Your task to perform on an android device: turn on airplane mode Image 0: 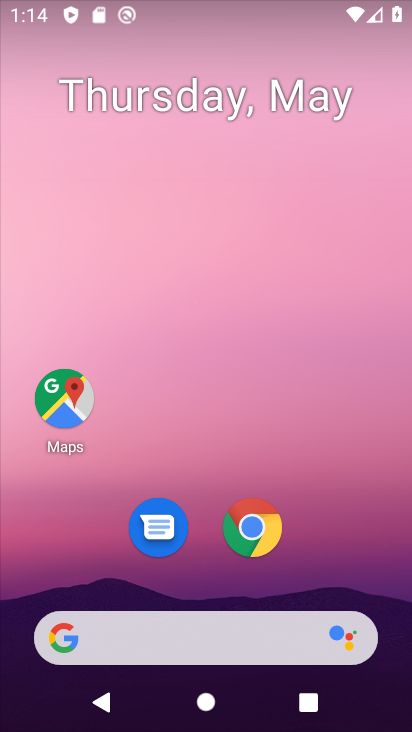
Step 0: click (224, 16)
Your task to perform on an android device: turn on airplane mode Image 1: 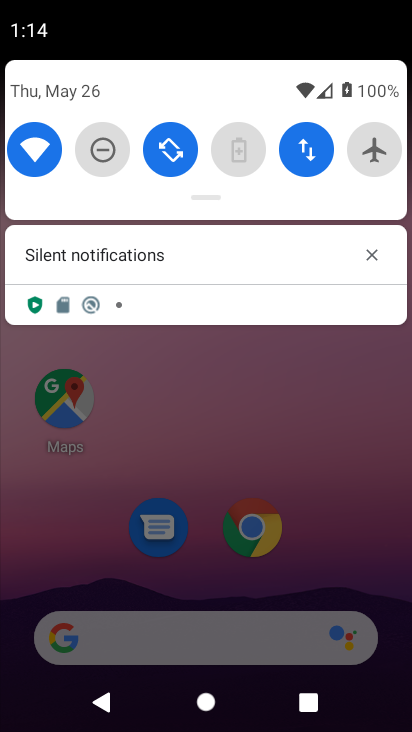
Step 1: drag from (203, 564) to (263, 98)
Your task to perform on an android device: turn on airplane mode Image 2: 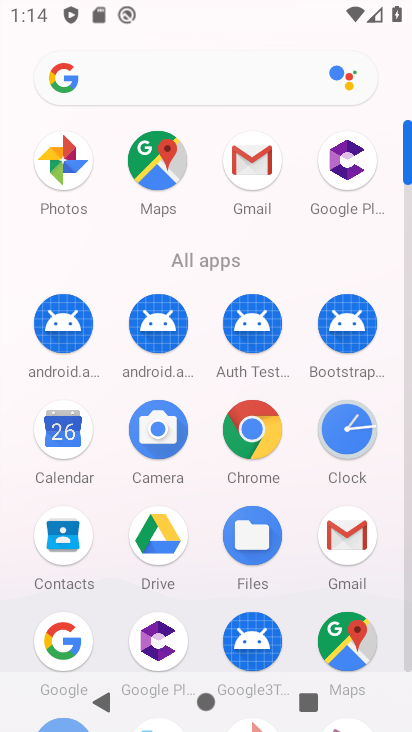
Step 2: drag from (204, 586) to (189, 190)
Your task to perform on an android device: turn on airplane mode Image 3: 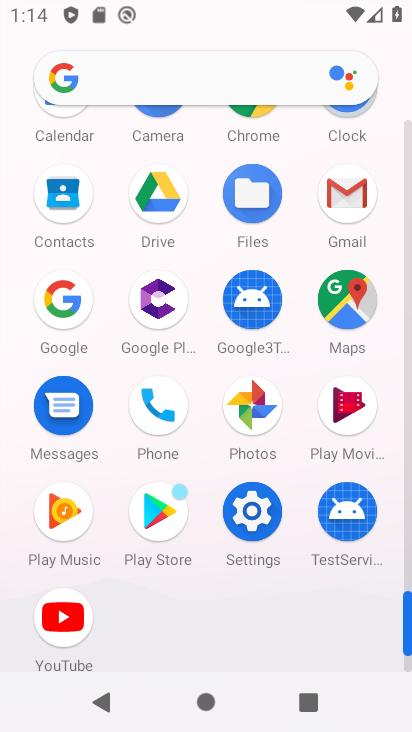
Step 3: click (254, 522)
Your task to perform on an android device: turn on airplane mode Image 4: 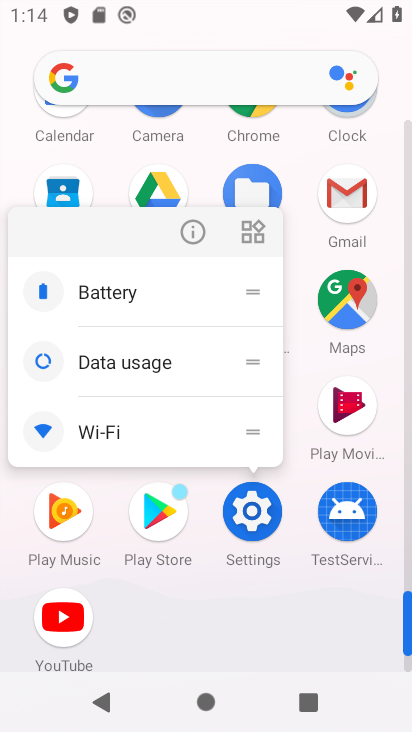
Step 4: click (192, 223)
Your task to perform on an android device: turn on airplane mode Image 5: 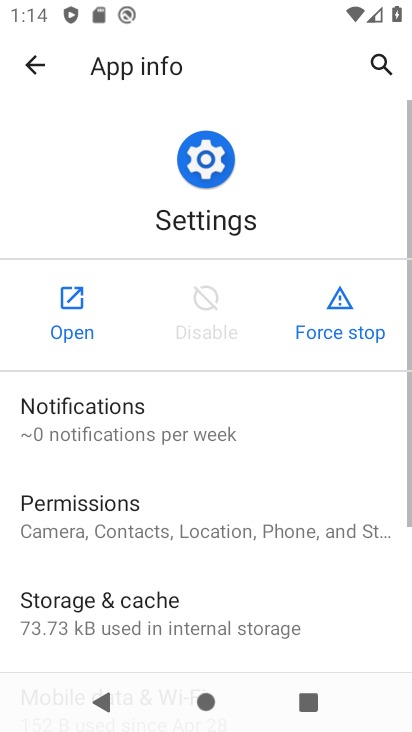
Step 5: click (79, 296)
Your task to perform on an android device: turn on airplane mode Image 6: 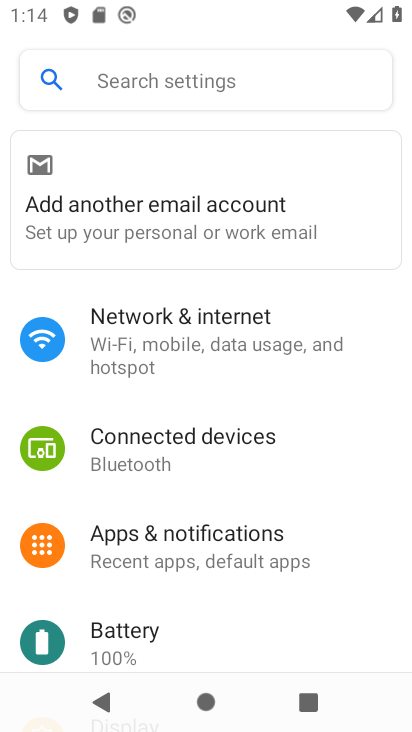
Step 6: click (191, 337)
Your task to perform on an android device: turn on airplane mode Image 7: 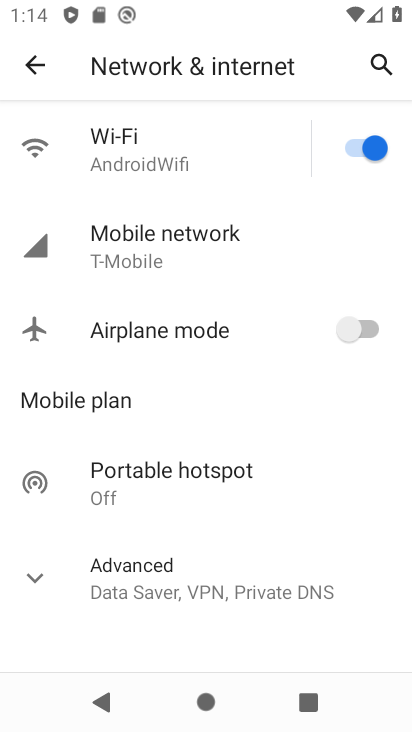
Step 7: click (215, 336)
Your task to perform on an android device: turn on airplane mode Image 8: 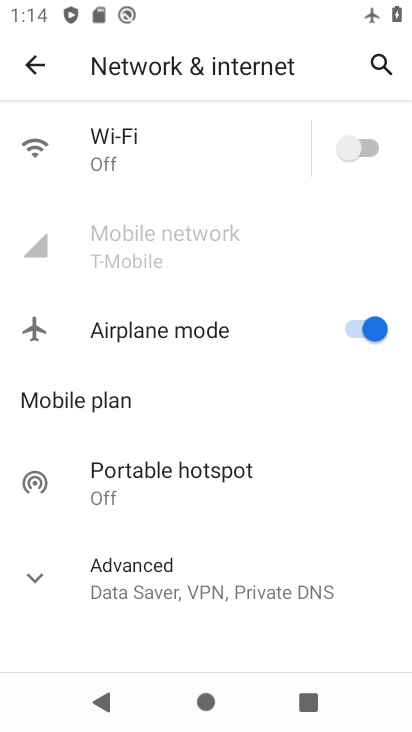
Step 8: task complete